Your task to perform on an android device: Go to Yahoo.com Image 0: 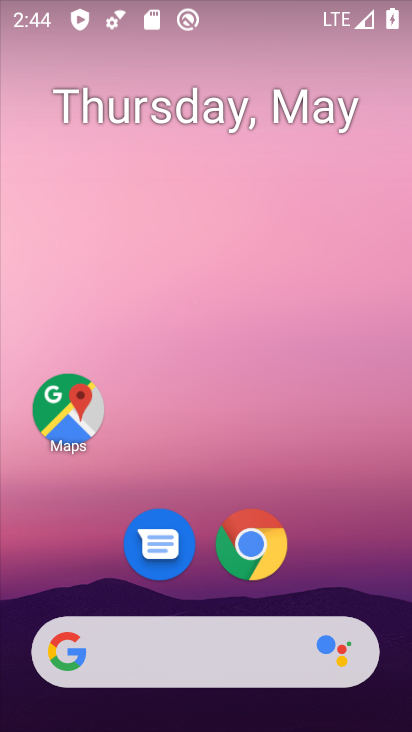
Step 0: click (119, 661)
Your task to perform on an android device: Go to Yahoo.com Image 1: 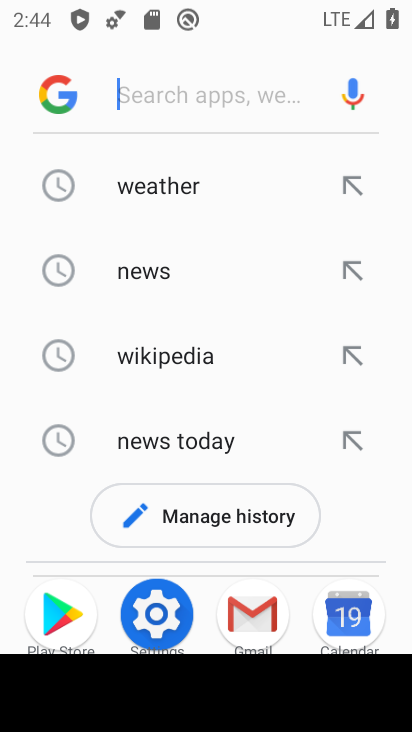
Step 1: type "yahoo.com'"
Your task to perform on an android device: Go to Yahoo.com Image 2: 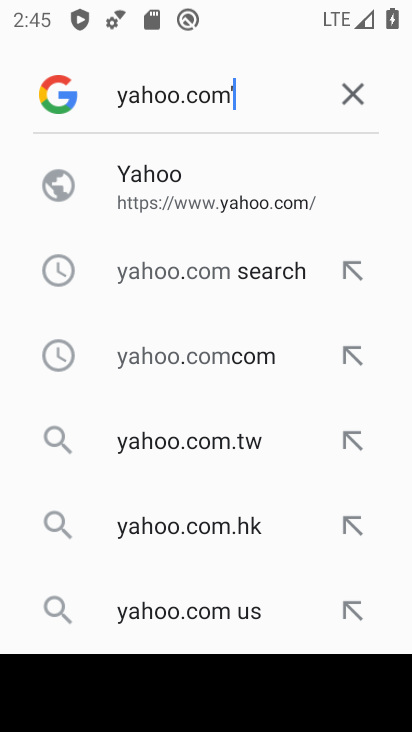
Step 2: click (274, 191)
Your task to perform on an android device: Go to Yahoo.com Image 3: 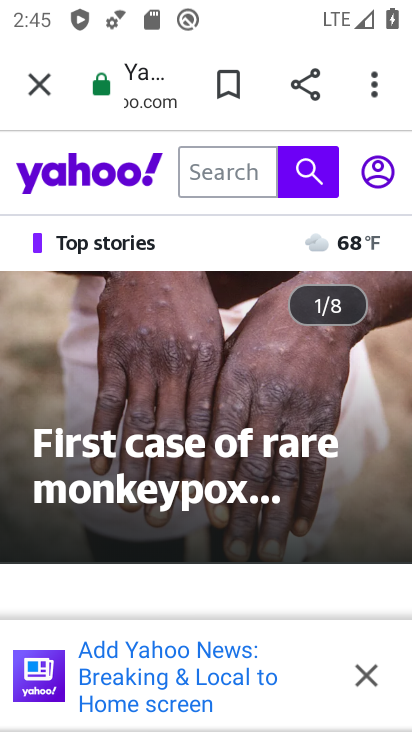
Step 3: task complete